Your task to perform on an android device: Add logitech g pro to the cart on ebay, then select checkout. Image 0: 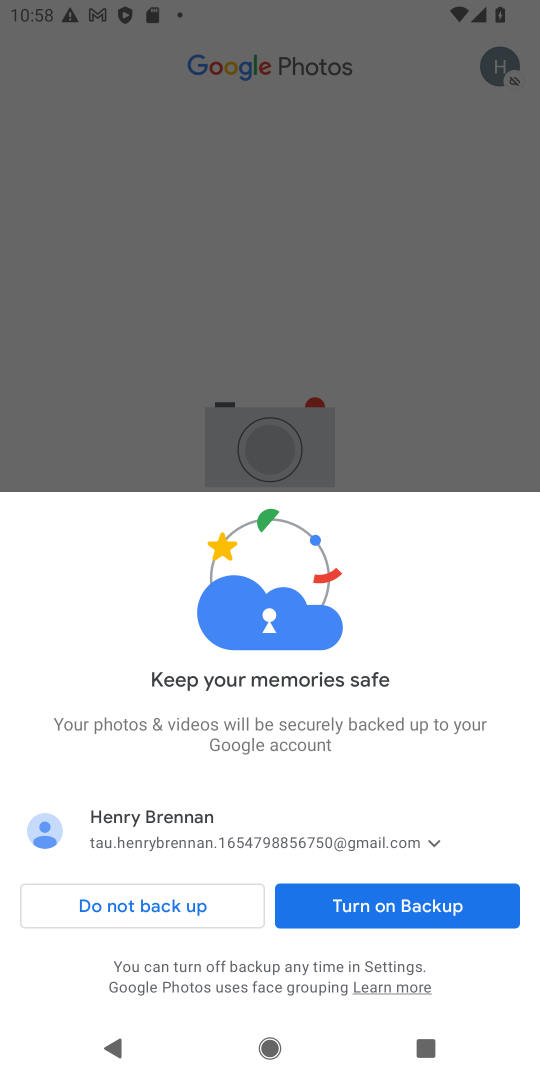
Step 0: press home button
Your task to perform on an android device: Add logitech g pro to the cart on ebay, then select checkout. Image 1: 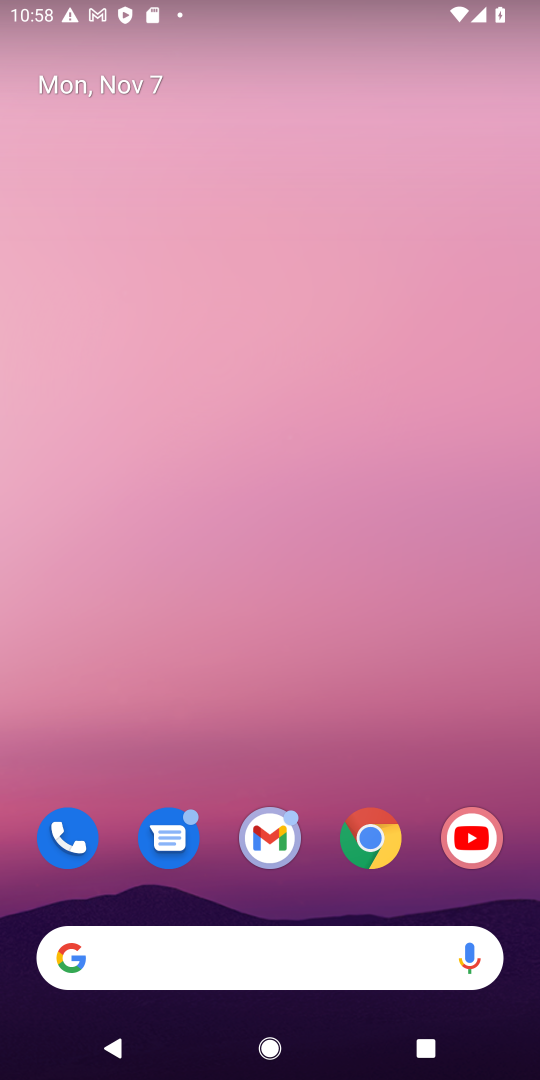
Step 1: click (364, 826)
Your task to perform on an android device: Add logitech g pro to the cart on ebay, then select checkout. Image 2: 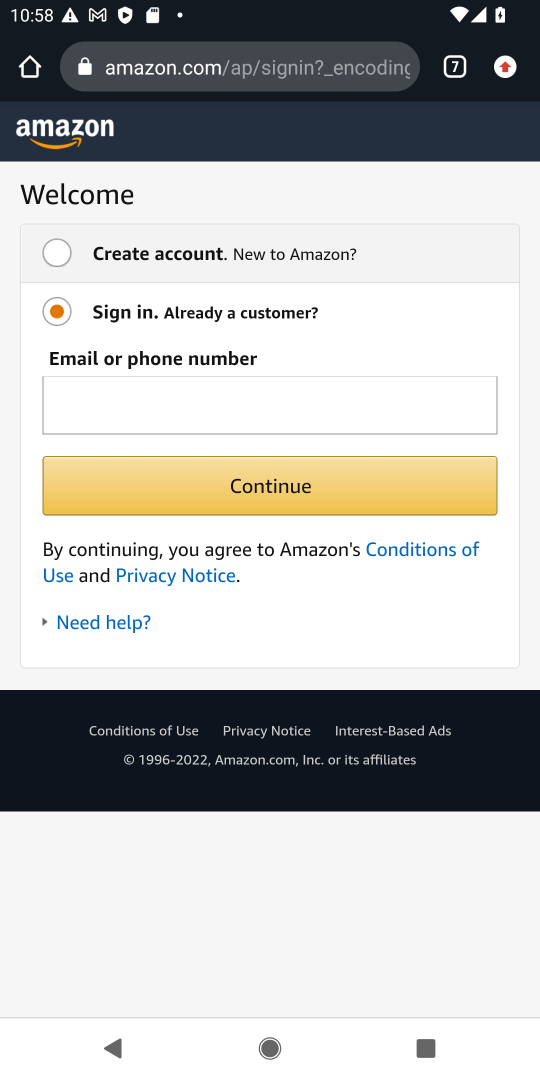
Step 2: click (451, 59)
Your task to perform on an android device: Add logitech g pro to the cart on ebay, then select checkout. Image 3: 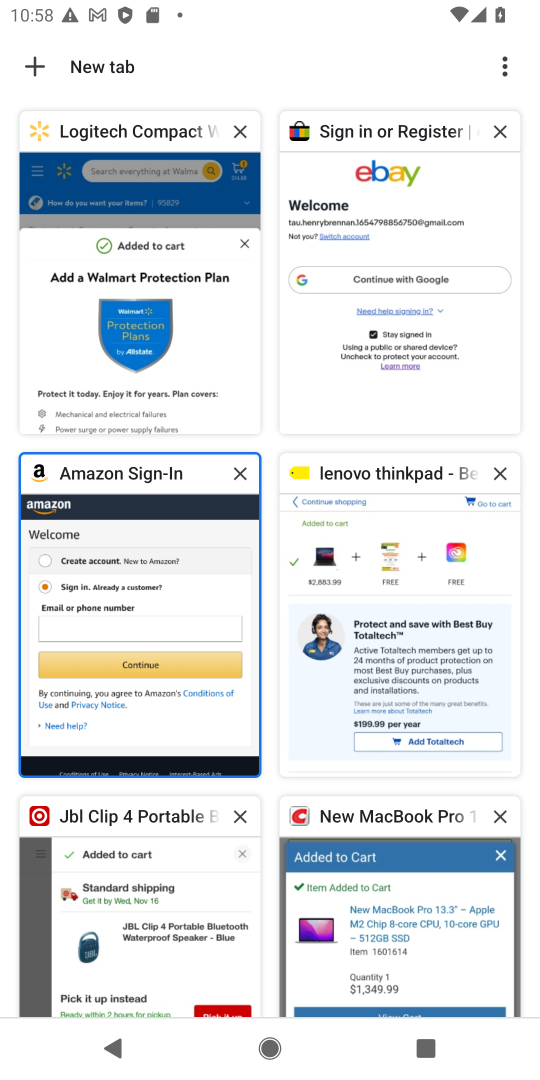
Step 3: click (434, 273)
Your task to perform on an android device: Add logitech g pro to the cart on ebay, then select checkout. Image 4: 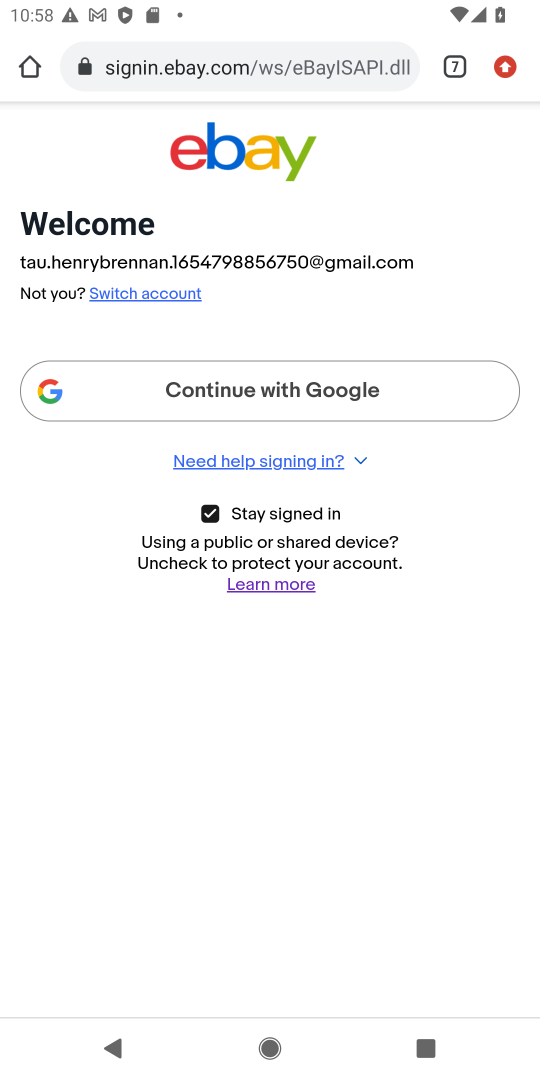
Step 4: click (254, 406)
Your task to perform on an android device: Add logitech g pro to the cart on ebay, then select checkout. Image 5: 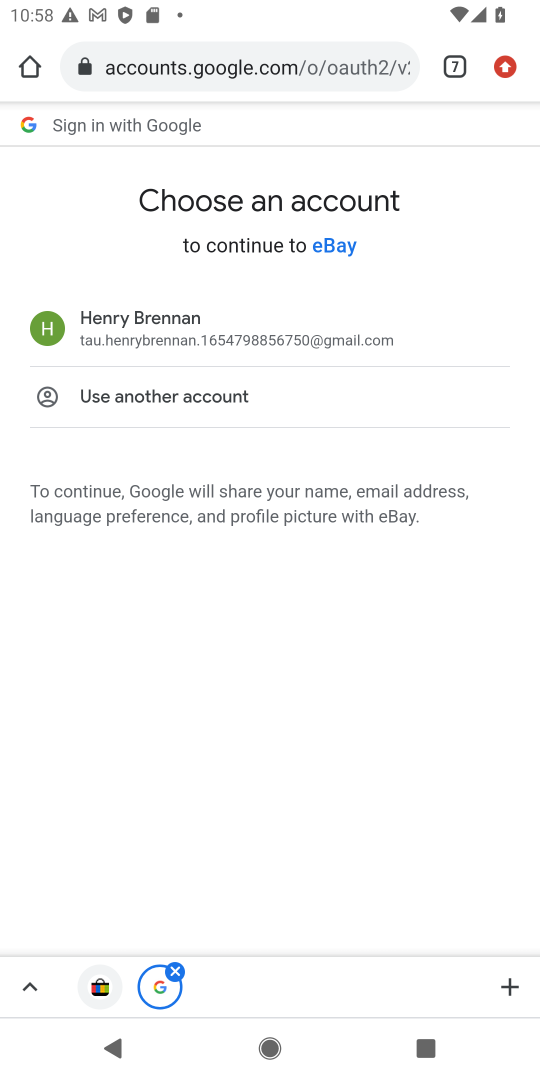
Step 5: click (167, 327)
Your task to perform on an android device: Add logitech g pro to the cart on ebay, then select checkout. Image 6: 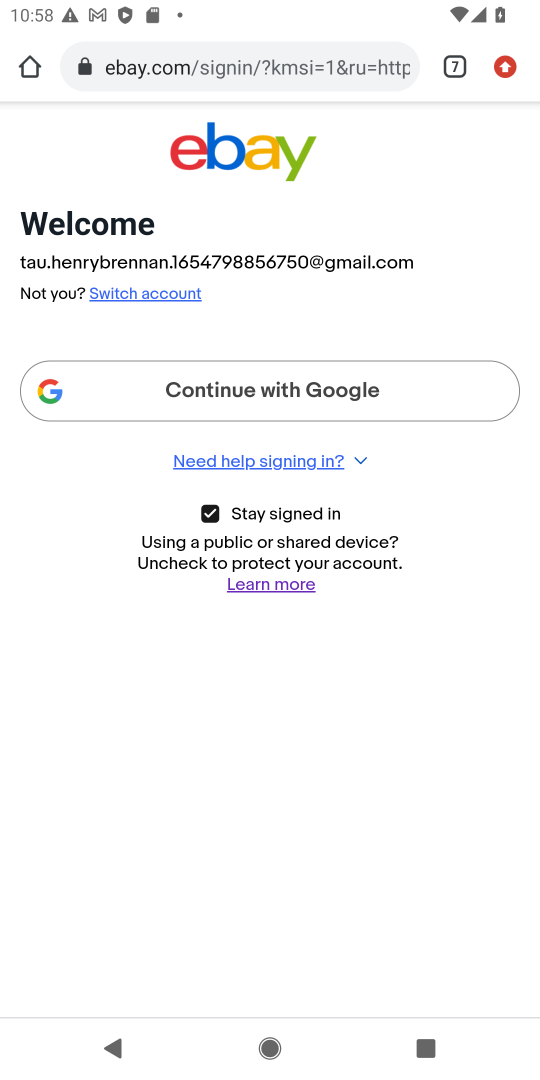
Step 6: press home button
Your task to perform on an android device: Add logitech g pro to the cart on ebay, then select checkout. Image 7: 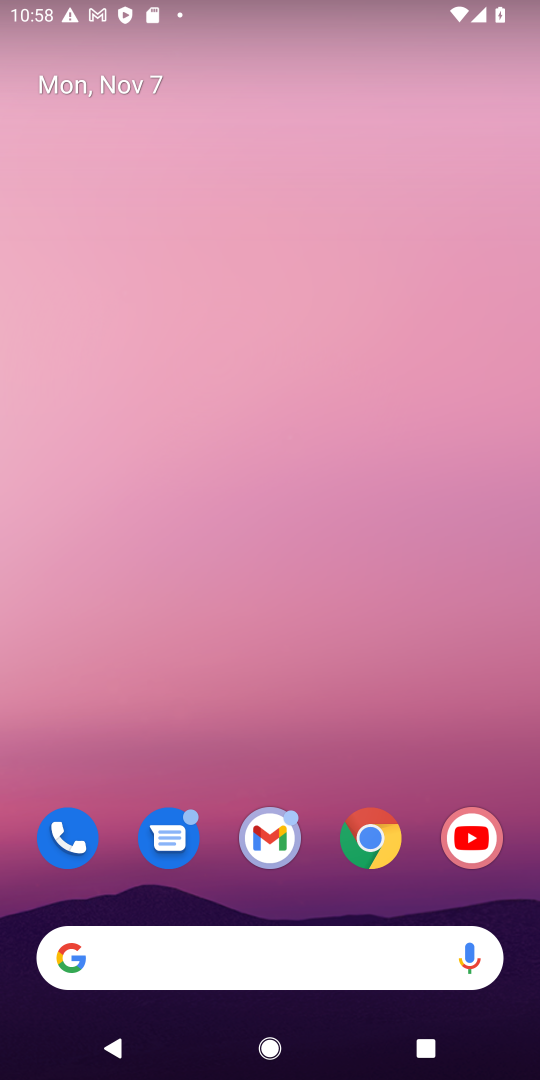
Step 7: click (240, 963)
Your task to perform on an android device: Add logitech g pro to the cart on ebay, then select checkout. Image 8: 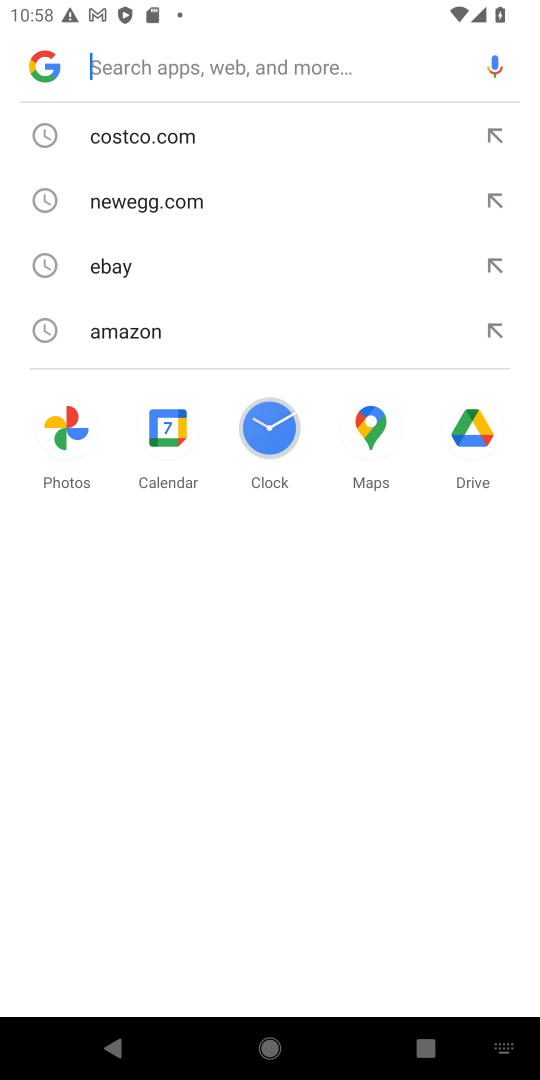
Step 8: click (110, 264)
Your task to perform on an android device: Add logitech g pro to the cart on ebay, then select checkout. Image 9: 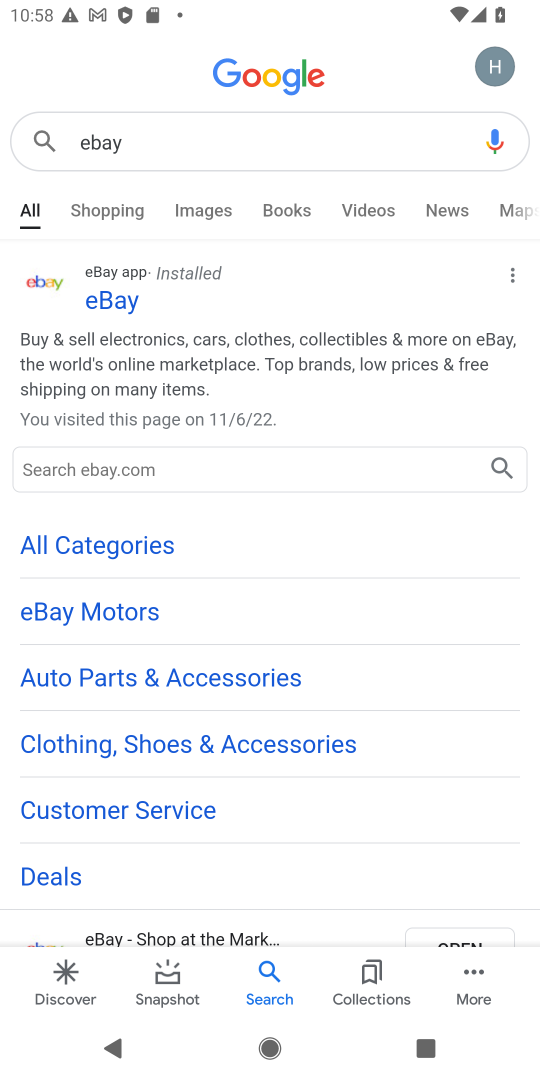
Step 9: click (109, 461)
Your task to perform on an android device: Add logitech g pro to the cart on ebay, then select checkout. Image 10: 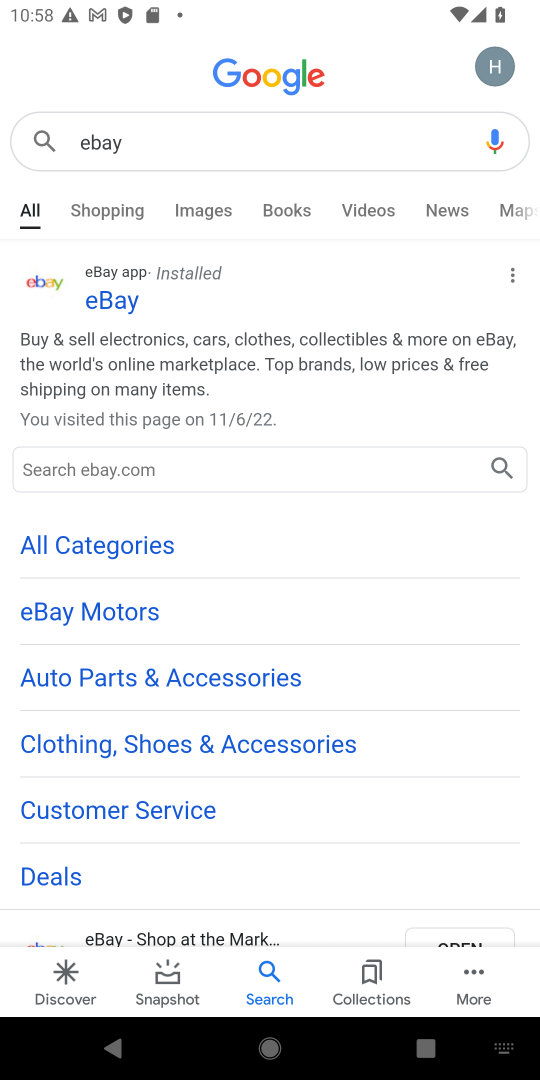
Step 10: type "logitech g pro"
Your task to perform on an android device: Add logitech g pro to the cart on ebay, then select checkout. Image 11: 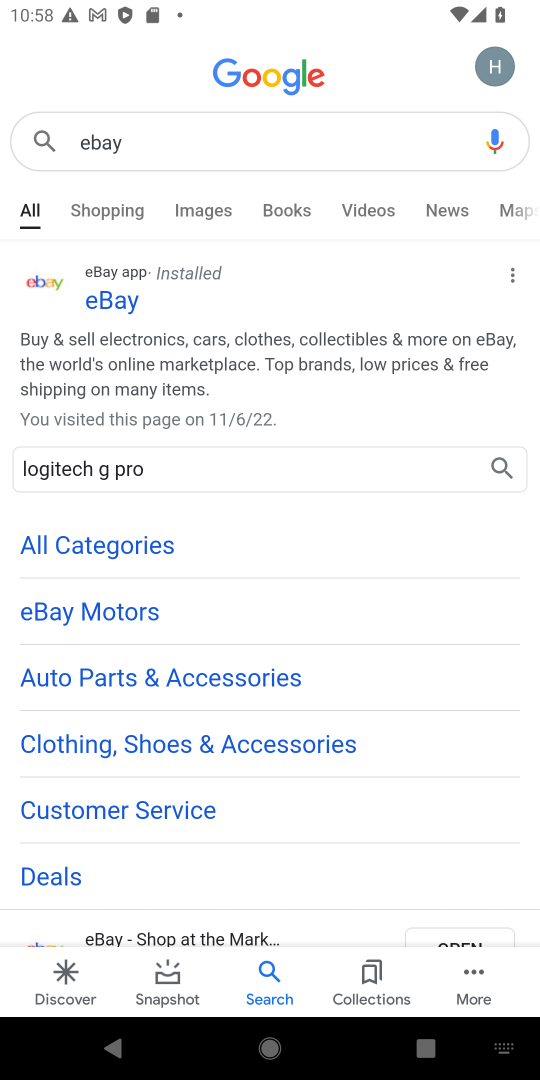
Step 11: click (505, 460)
Your task to perform on an android device: Add logitech g pro to the cart on ebay, then select checkout. Image 12: 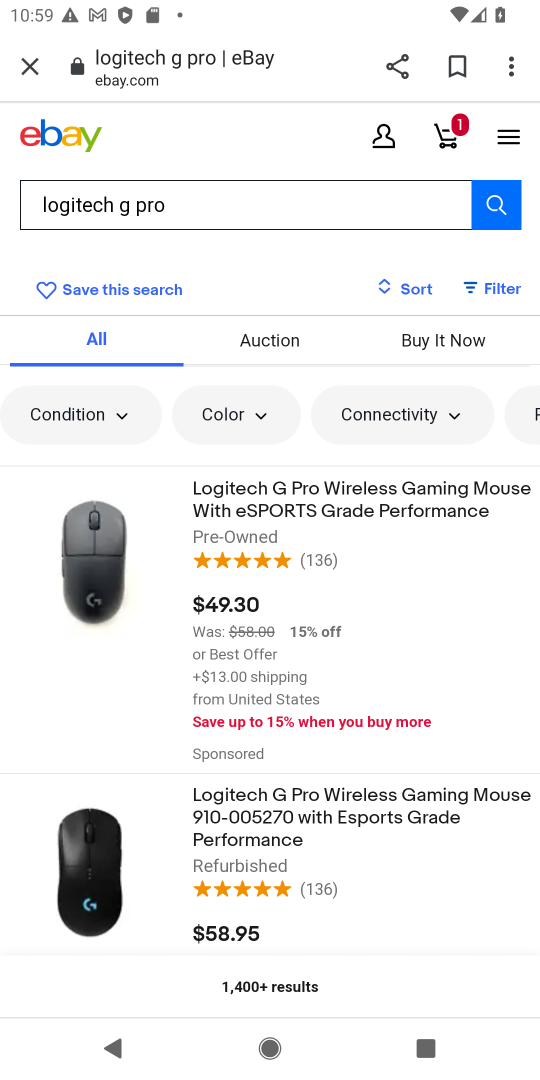
Step 12: click (329, 506)
Your task to perform on an android device: Add logitech g pro to the cart on ebay, then select checkout. Image 13: 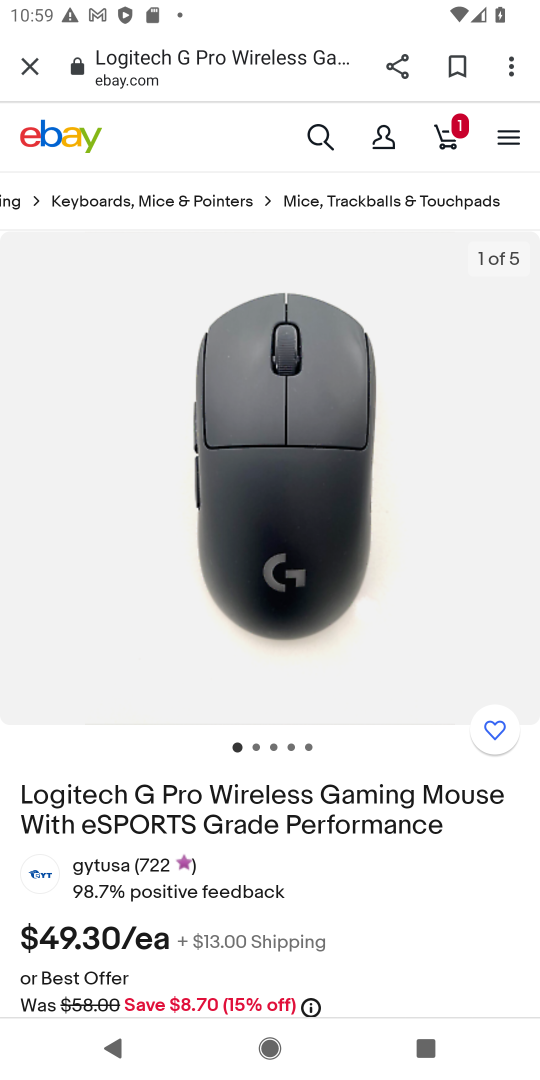
Step 13: drag from (299, 954) to (368, 275)
Your task to perform on an android device: Add logitech g pro to the cart on ebay, then select checkout. Image 14: 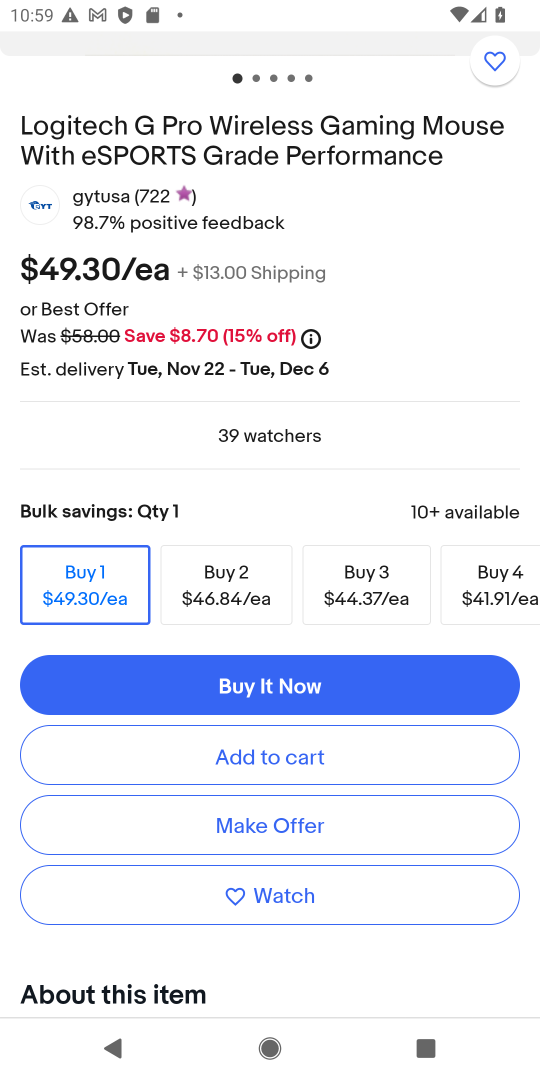
Step 14: click (269, 750)
Your task to perform on an android device: Add logitech g pro to the cart on ebay, then select checkout. Image 15: 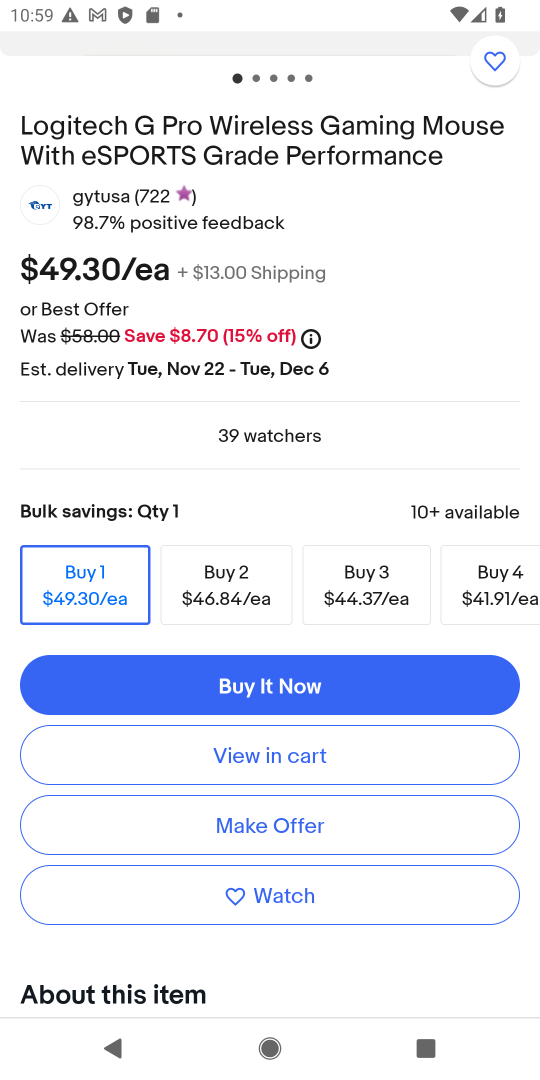
Step 15: click (269, 750)
Your task to perform on an android device: Add logitech g pro to the cart on ebay, then select checkout. Image 16: 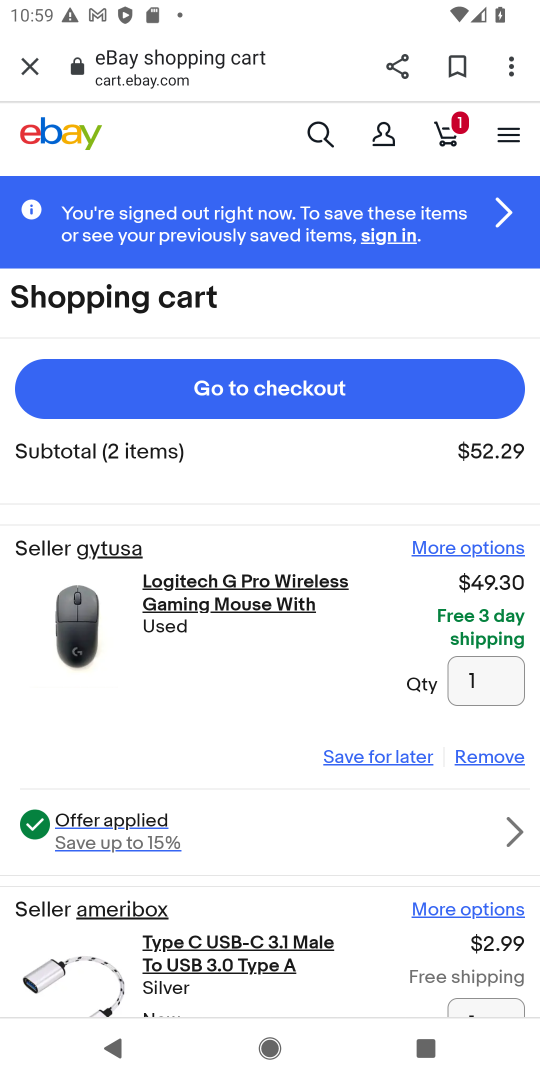
Step 16: click (241, 383)
Your task to perform on an android device: Add logitech g pro to the cart on ebay, then select checkout. Image 17: 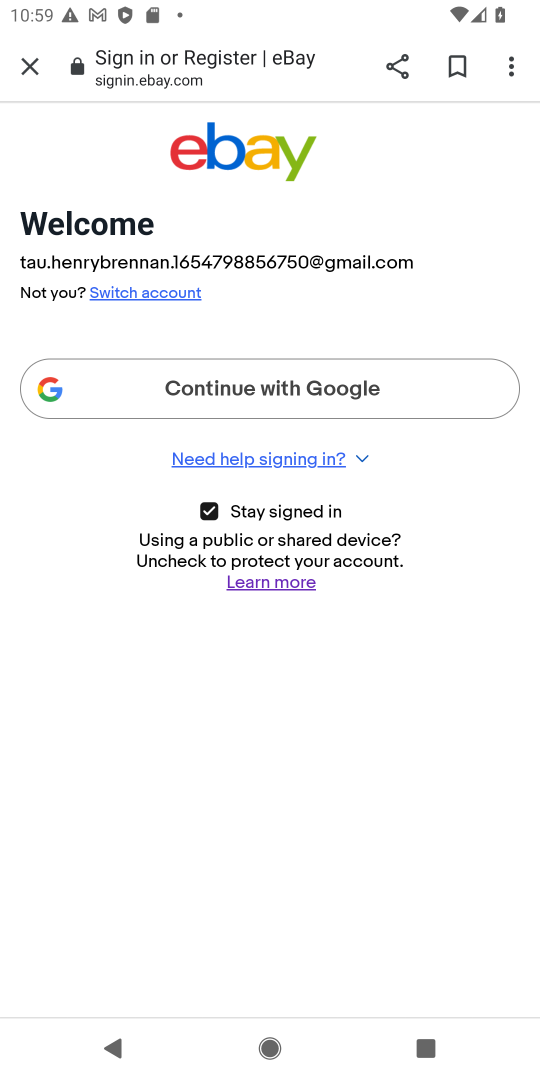
Step 17: task complete